Your task to perform on an android device: move a message to another label in the gmail app Image 0: 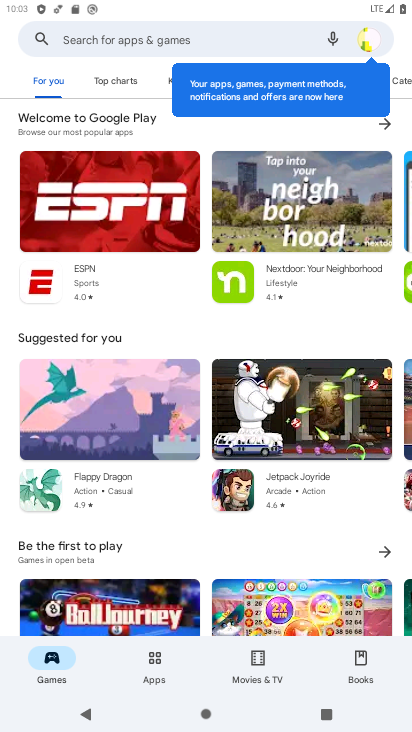
Step 0: press home button
Your task to perform on an android device: move a message to another label in the gmail app Image 1: 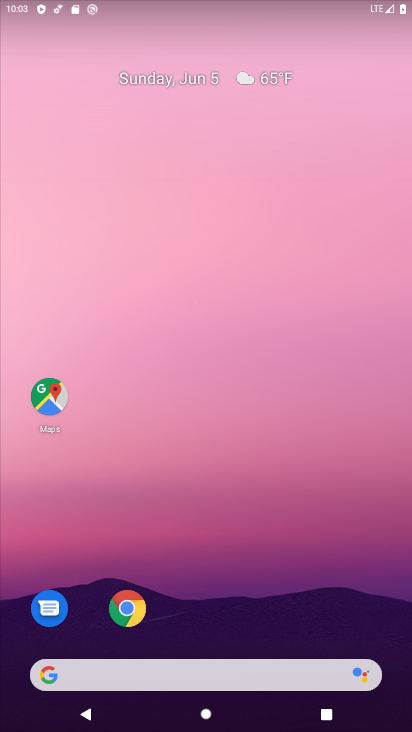
Step 1: drag from (195, 675) to (108, 0)
Your task to perform on an android device: move a message to another label in the gmail app Image 2: 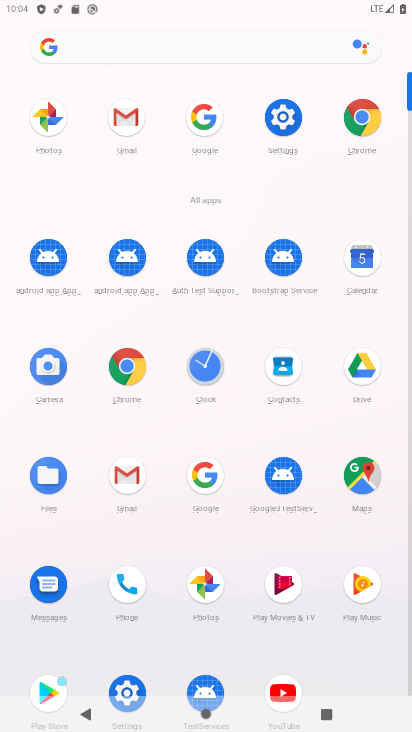
Step 2: click (131, 489)
Your task to perform on an android device: move a message to another label in the gmail app Image 3: 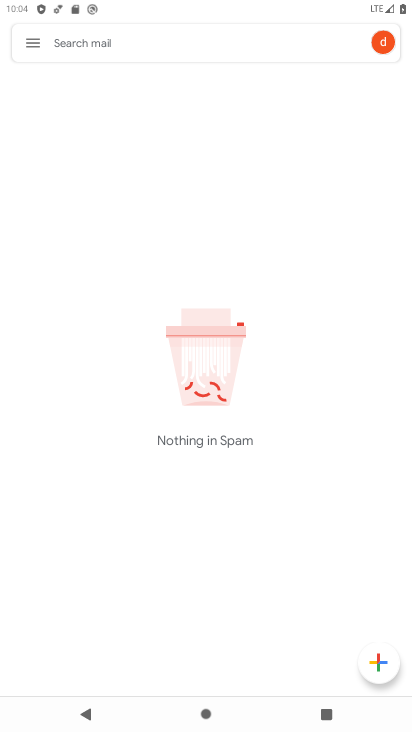
Step 3: click (37, 44)
Your task to perform on an android device: move a message to another label in the gmail app Image 4: 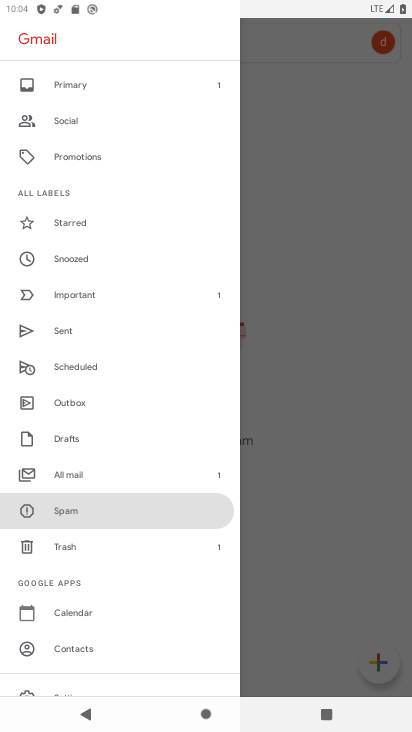
Step 4: drag from (99, 235) to (30, 664)
Your task to perform on an android device: move a message to another label in the gmail app Image 5: 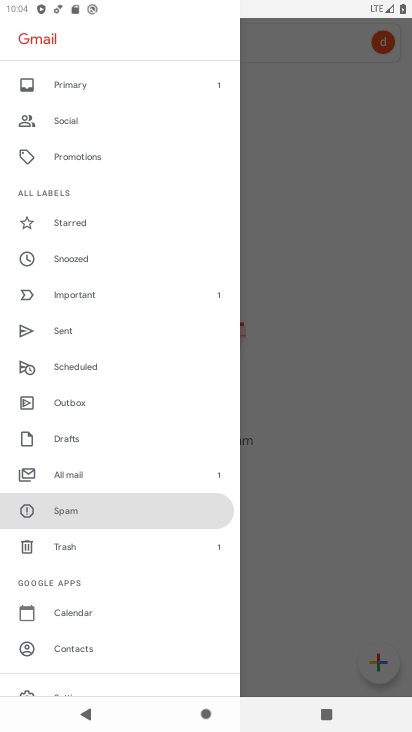
Step 5: drag from (134, 143) to (126, 519)
Your task to perform on an android device: move a message to another label in the gmail app Image 6: 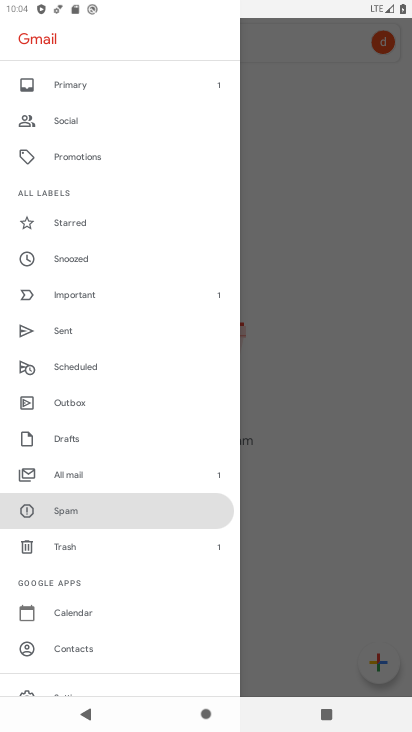
Step 6: click (69, 471)
Your task to perform on an android device: move a message to another label in the gmail app Image 7: 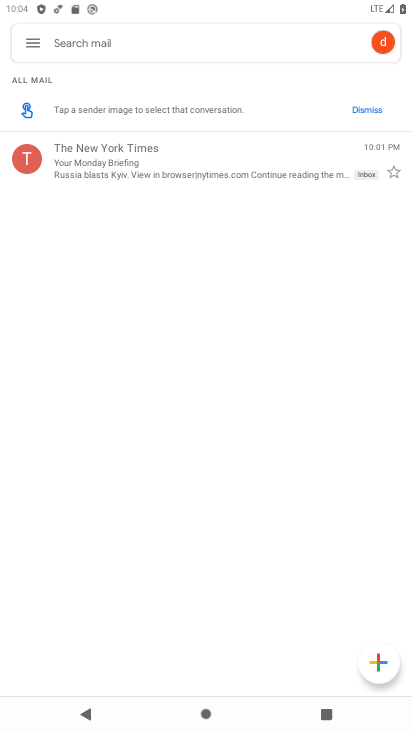
Step 7: click (18, 159)
Your task to perform on an android device: move a message to another label in the gmail app Image 8: 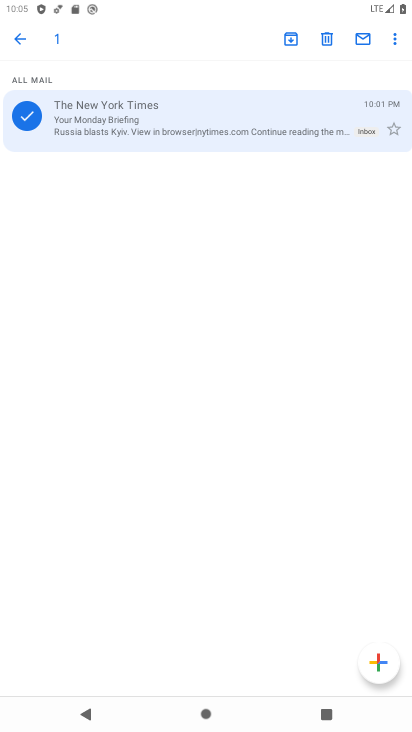
Step 8: click (391, 46)
Your task to perform on an android device: move a message to another label in the gmail app Image 9: 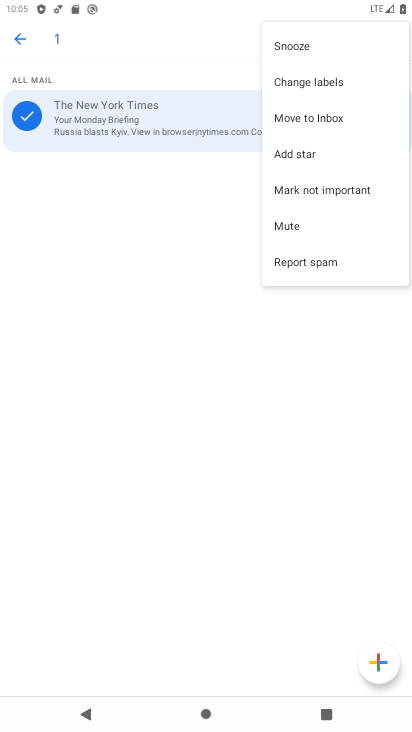
Step 9: click (326, 120)
Your task to perform on an android device: move a message to another label in the gmail app Image 10: 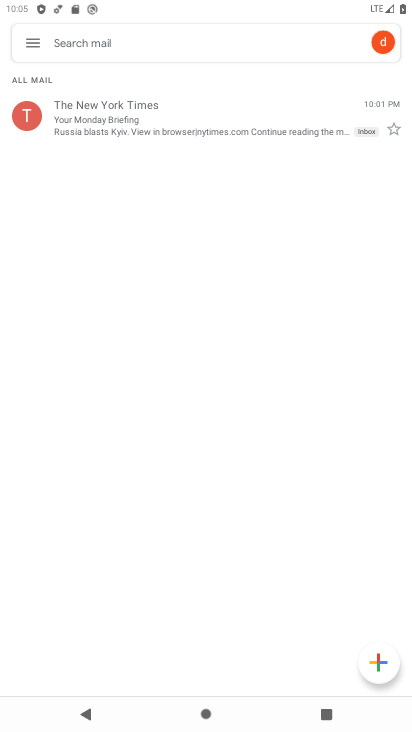
Step 10: task complete